Your task to perform on an android device: set an alarm Image 0: 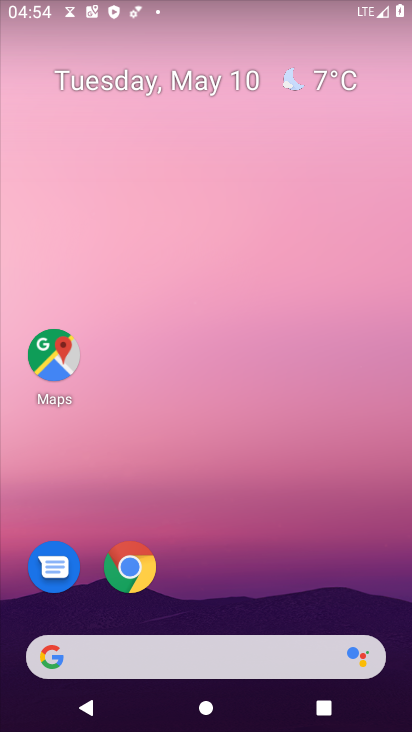
Step 0: press back button
Your task to perform on an android device: set an alarm Image 1: 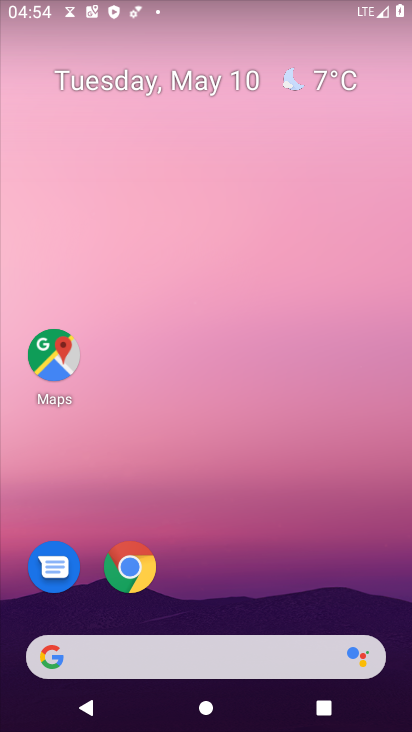
Step 1: drag from (230, 577) to (214, 61)
Your task to perform on an android device: set an alarm Image 2: 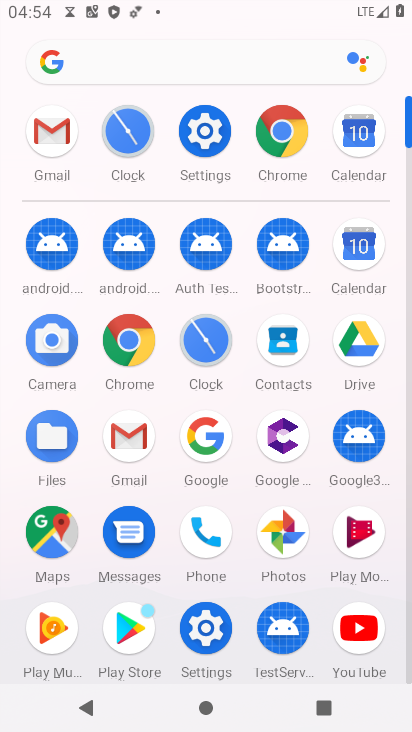
Step 2: click (207, 340)
Your task to perform on an android device: set an alarm Image 3: 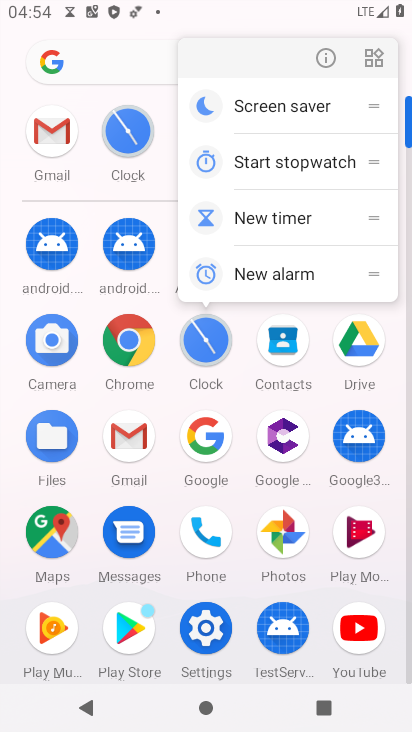
Step 3: click (207, 340)
Your task to perform on an android device: set an alarm Image 4: 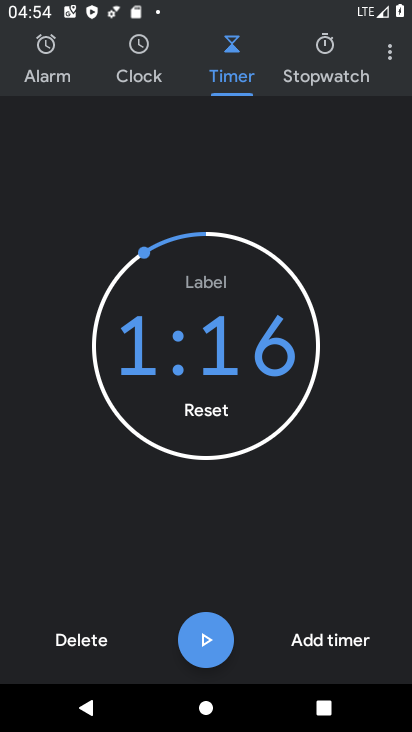
Step 4: click (45, 45)
Your task to perform on an android device: set an alarm Image 5: 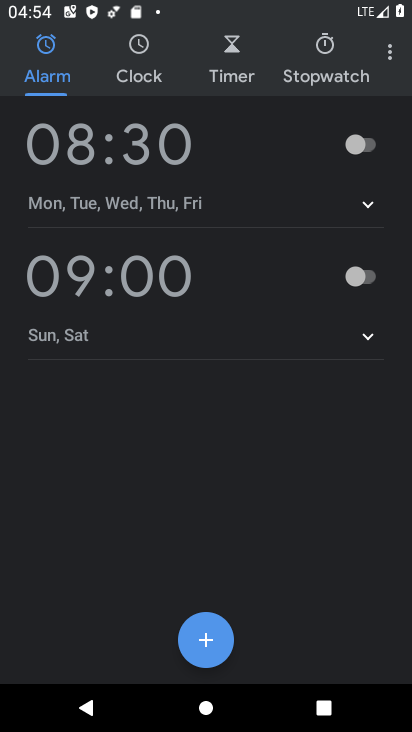
Step 5: click (207, 642)
Your task to perform on an android device: set an alarm Image 6: 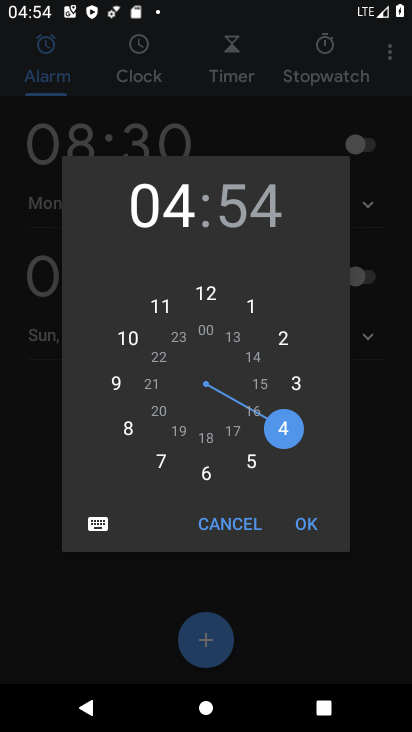
Step 6: click (204, 333)
Your task to perform on an android device: set an alarm Image 7: 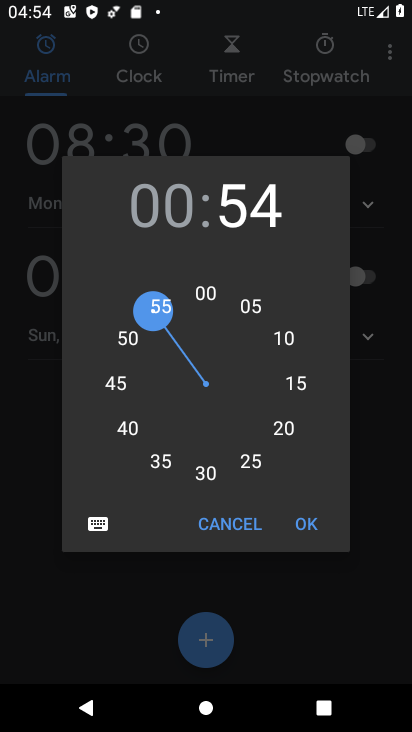
Step 7: click (204, 333)
Your task to perform on an android device: set an alarm Image 8: 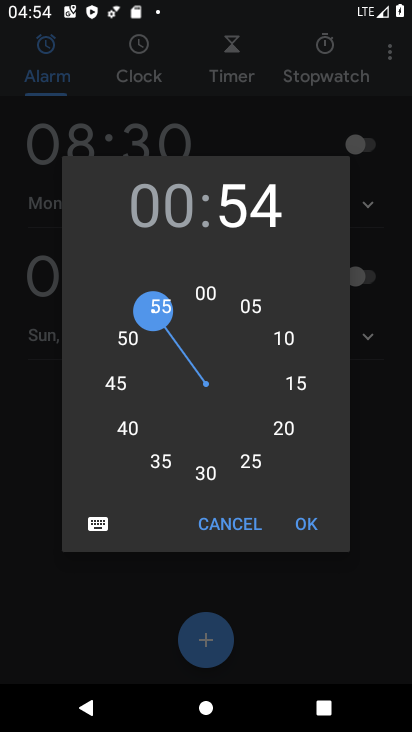
Step 8: click (206, 294)
Your task to perform on an android device: set an alarm Image 9: 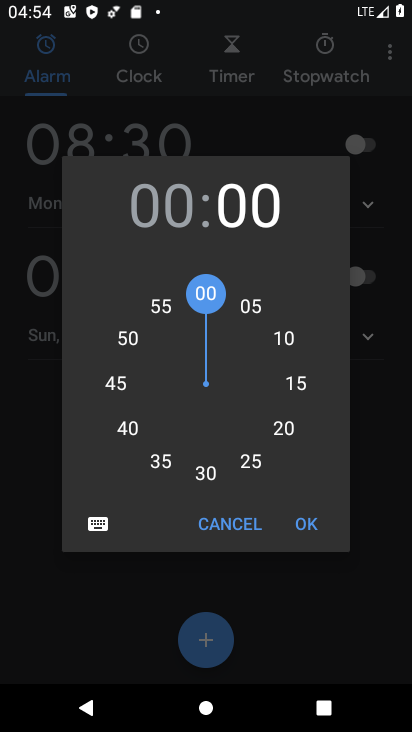
Step 9: click (163, 220)
Your task to perform on an android device: set an alarm Image 10: 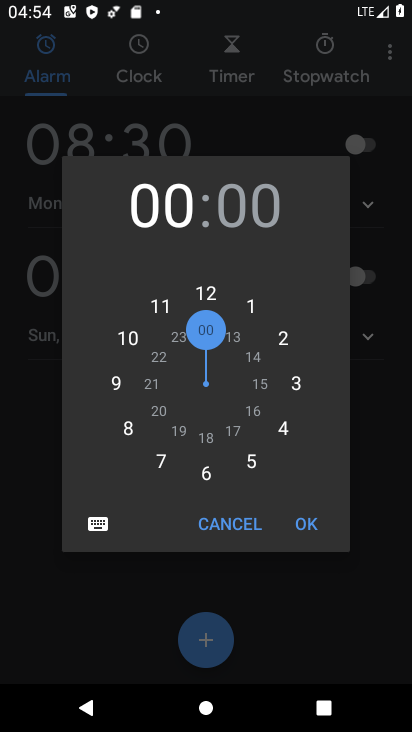
Step 10: click (248, 305)
Your task to perform on an android device: set an alarm Image 11: 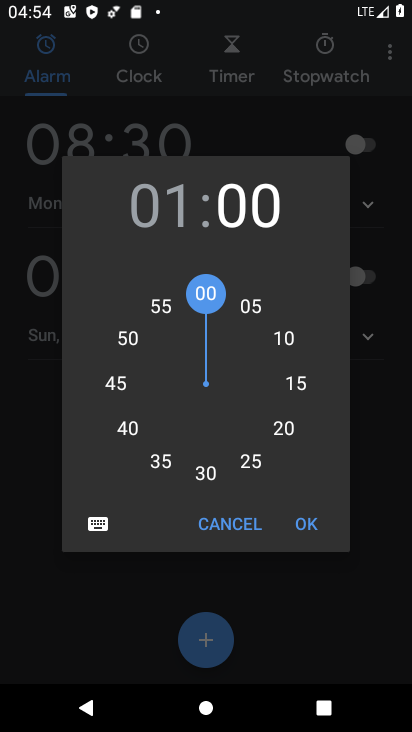
Step 11: click (301, 383)
Your task to perform on an android device: set an alarm Image 12: 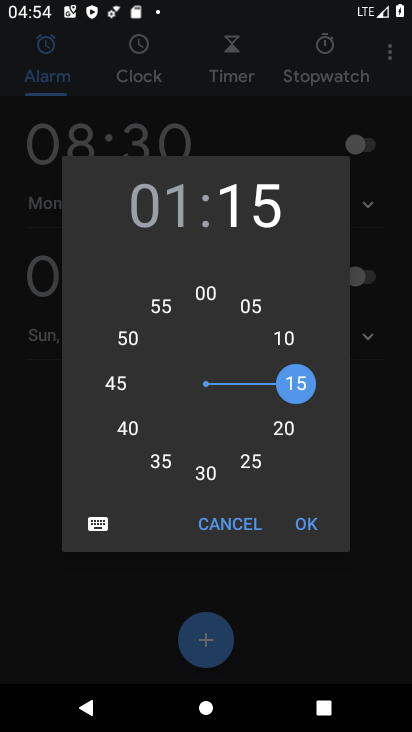
Step 12: click (148, 210)
Your task to perform on an android device: set an alarm Image 13: 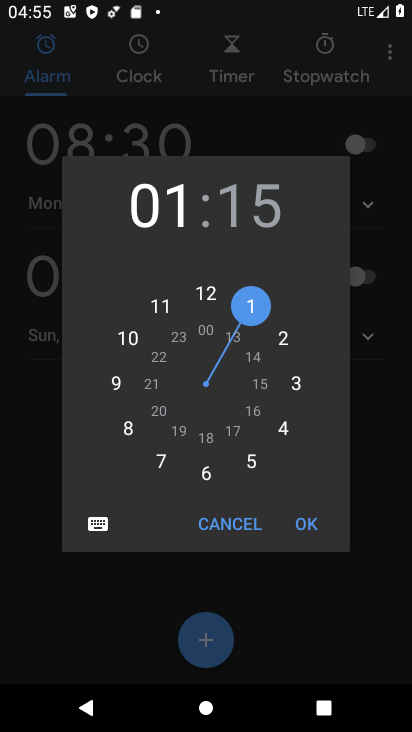
Step 13: click (158, 304)
Your task to perform on an android device: set an alarm Image 14: 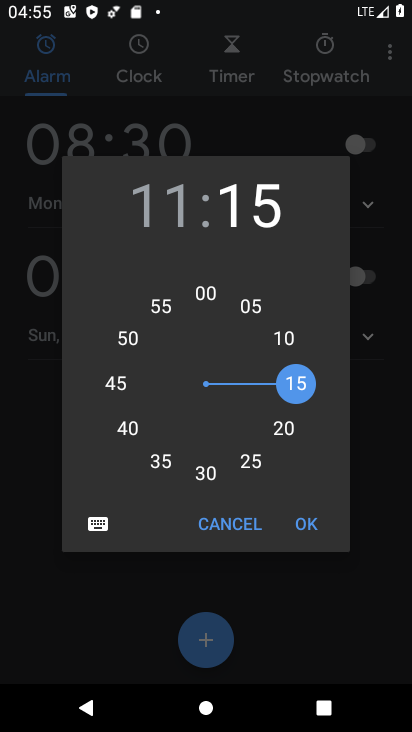
Step 14: click (310, 528)
Your task to perform on an android device: set an alarm Image 15: 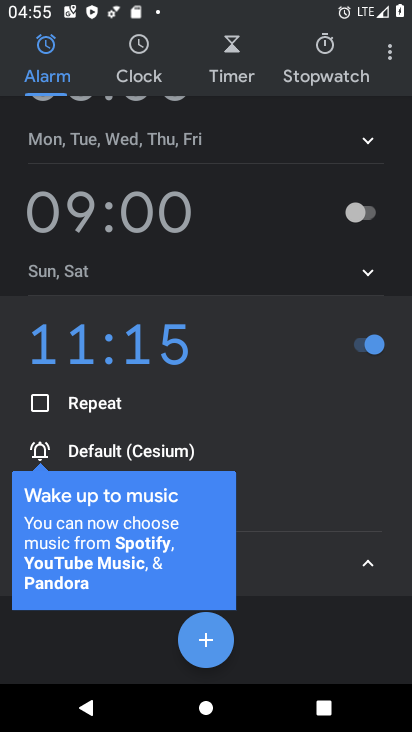
Step 15: click (365, 561)
Your task to perform on an android device: set an alarm Image 16: 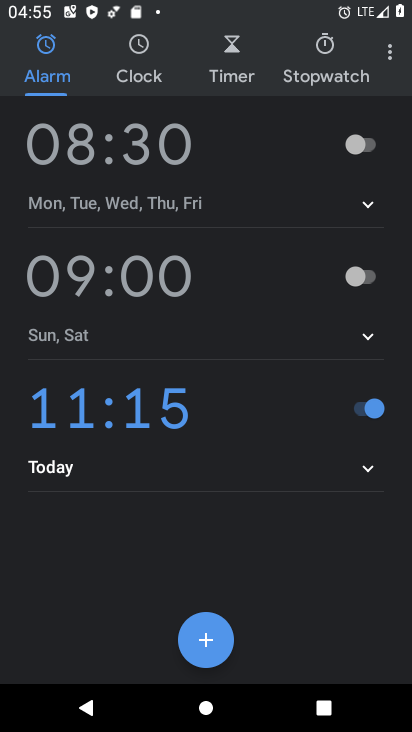
Step 16: task complete